Your task to perform on an android device: Go to location settings Image 0: 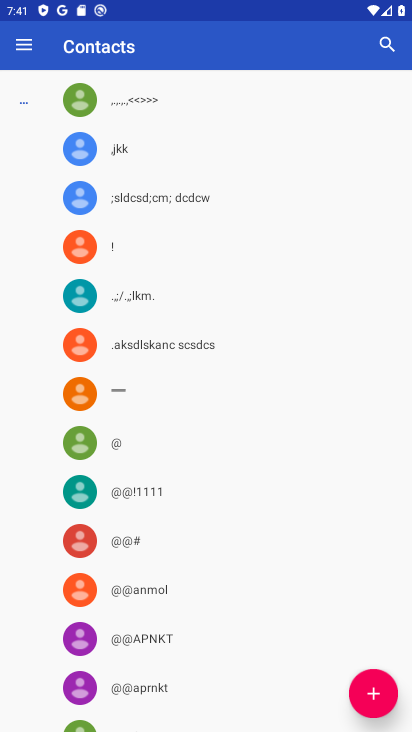
Step 0: press home button
Your task to perform on an android device: Go to location settings Image 1: 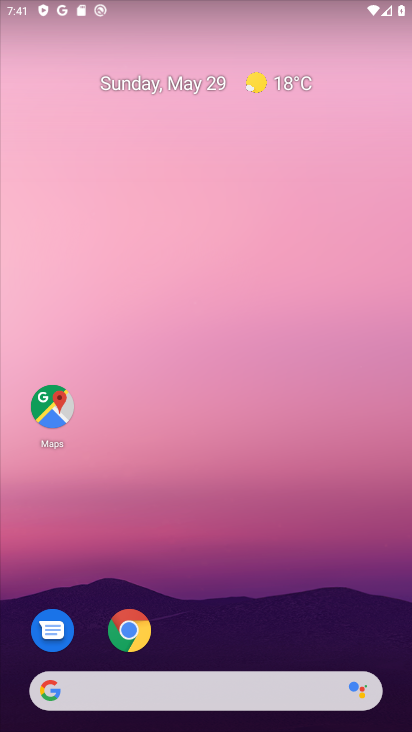
Step 1: click (231, 726)
Your task to perform on an android device: Go to location settings Image 2: 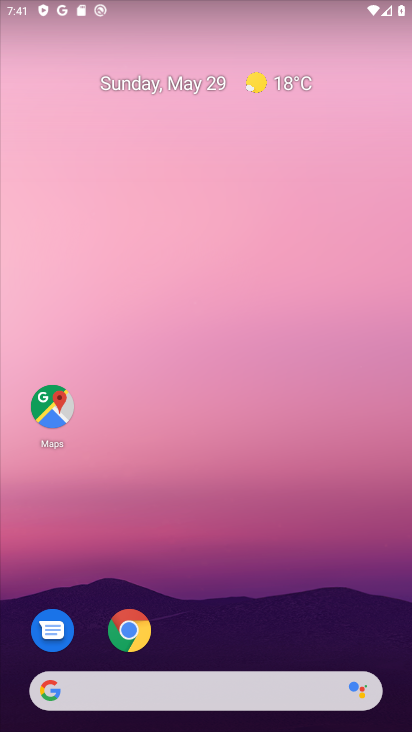
Step 2: drag from (242, 235) to (242, 42)
Your task to perform on an android device: Go to location settings Image 3: 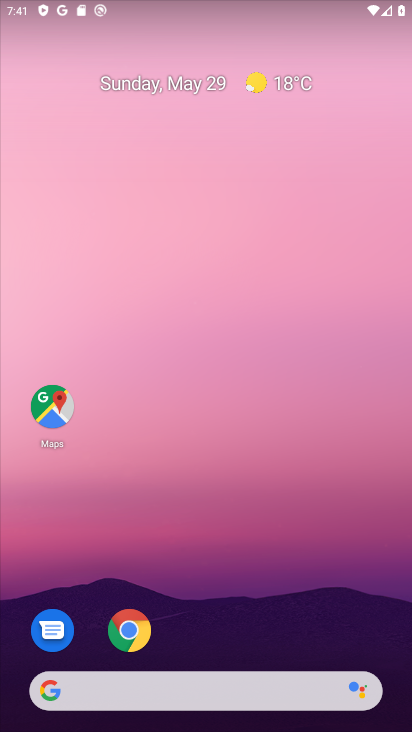
Step 3: drag from (214, 724) to (225, 87)
Your task to perform on an android device: Go to location settings Image 4: 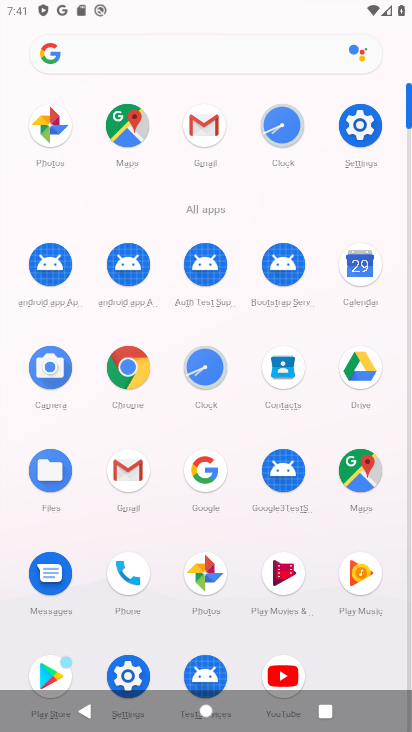
Step 4: click (365, 116)
Your task to perform on an android device: Go to location settings Image 5: 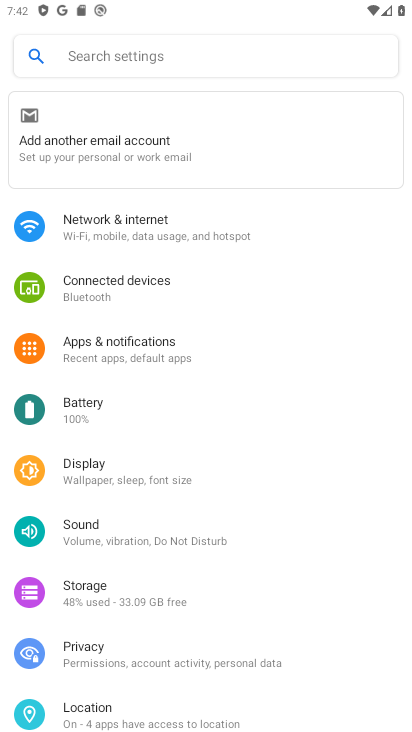
Step 5: click (98, 718)
Your task to perform on an android device: Go to location settings Image 6: 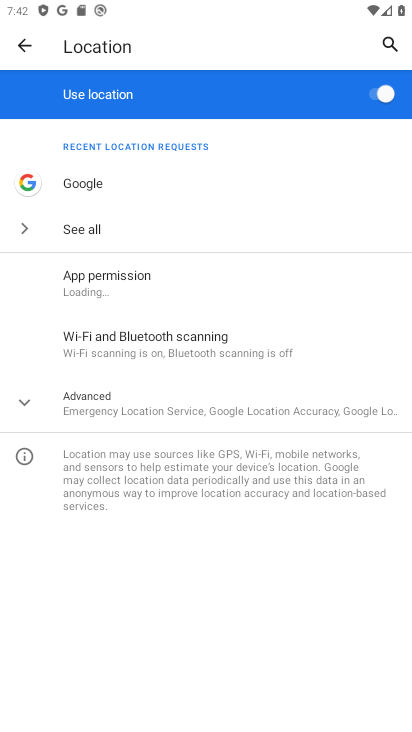
Step 6: task complete